Your task to perform on an android device: turn on showing notifications on the lock screen Image 0: 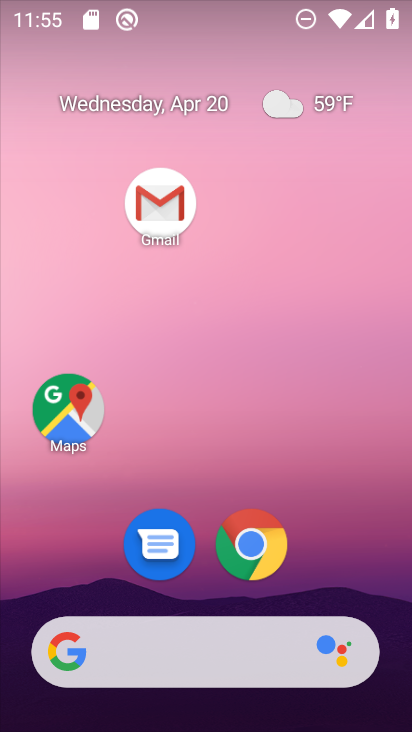
Step 0: drag from (281, 489) to (311, 188)
Your task to perform on an android device: turn on showing notifications on the lock screen Image 1: 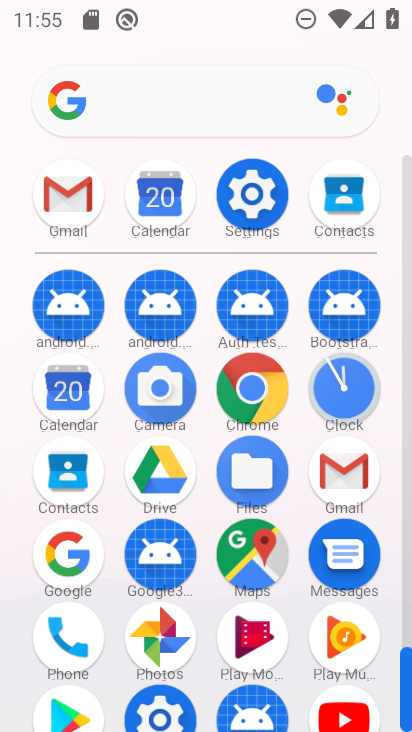
Step 1: click (249, 196)
Your task to perform on an android device: turn on showing notifications on the lock screen Image 2: 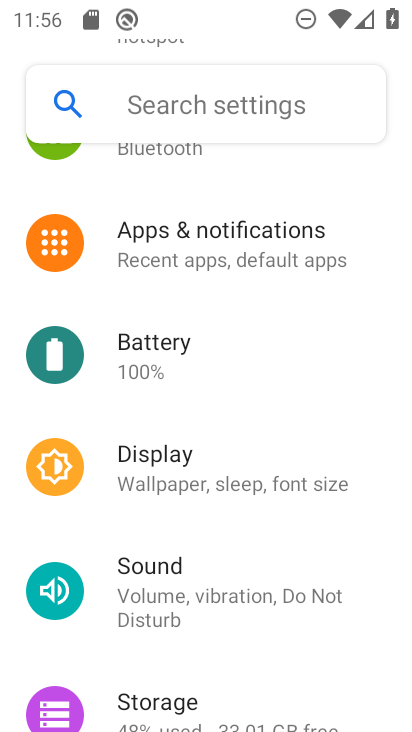
Step 2: click (254, 261)
Your task to perform on an android device: turn on showing notifications on the lock screen Image 3: 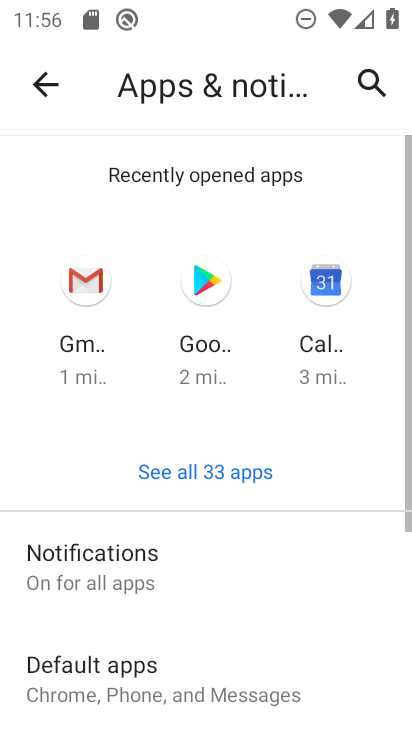
Step 3: click (203, 561)
Your task to perform on an android device: turn on showing notifications on the lock screen Image 4: 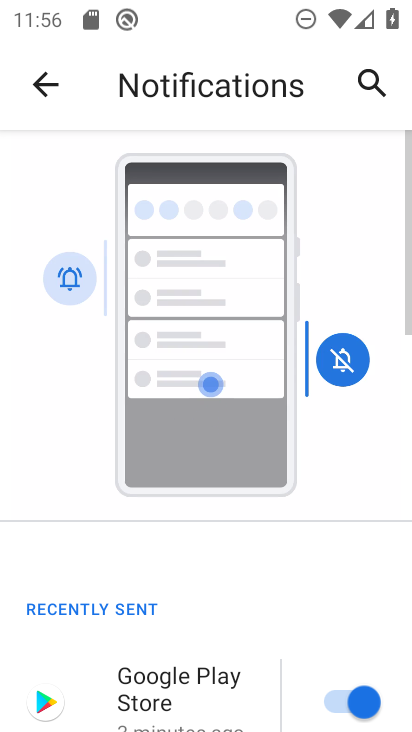
Step 4: drag from (203, 561) to (297, 80)
Your task to perform on an android device: turn on showing notifications on the lock screen Image 5: 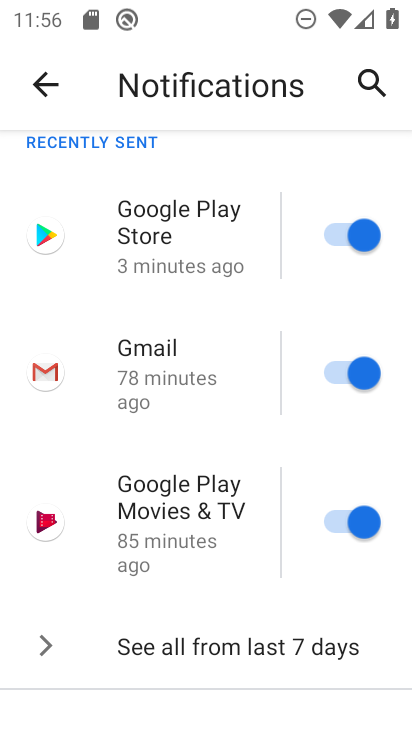
Step 5: drag from (200, 549) to (233, 117)
Your task to perform on an android device: turn on showing notifications on the lock screen Image 6: 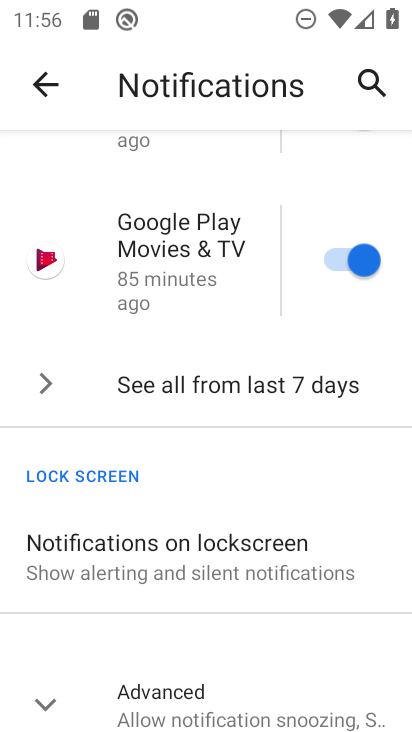
Step 6: click (186, 554)
Your task to perform on an android device: turn on showing notifications on the lock screen Image 7: 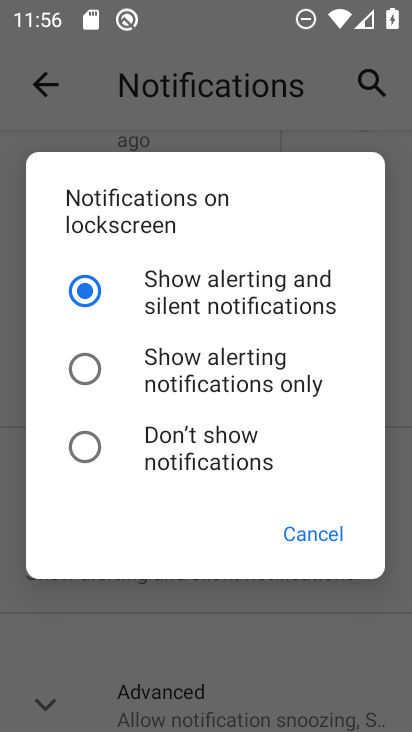
Step 7: click (101, 359)
Your task to perform on an android device: turn on showing notifications on the lock screen Image 8: 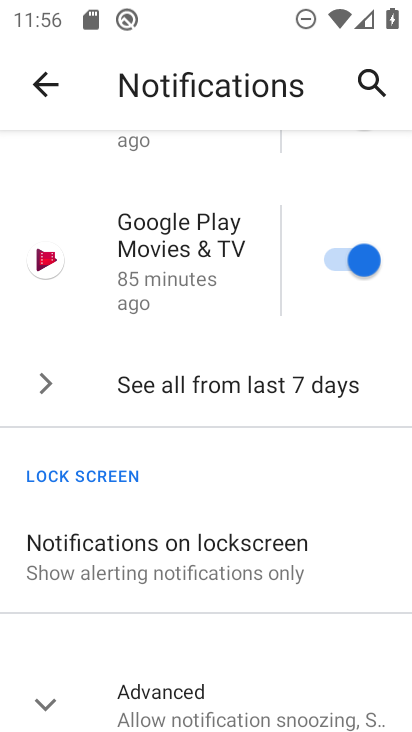
Step 8: task complete